Your task to perform on an android device: Is it going to rain this weekend? Image 0: 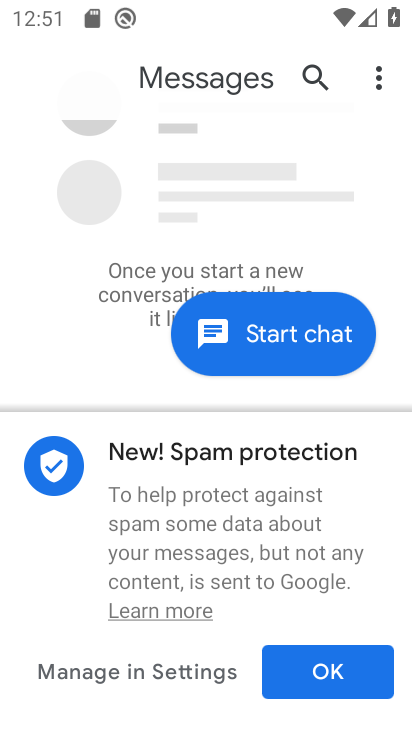
Step 0: press home button
Your task to perform on an android device: Is it going to rain this weekend? Image 1: 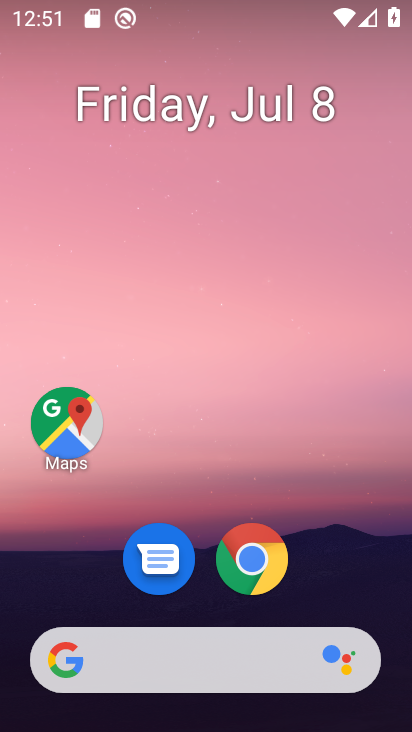
Step 1: drag from (225, 620) to (166, 26)
Your task to perform on an android device: Is it going to rain this weekend? Image 2: 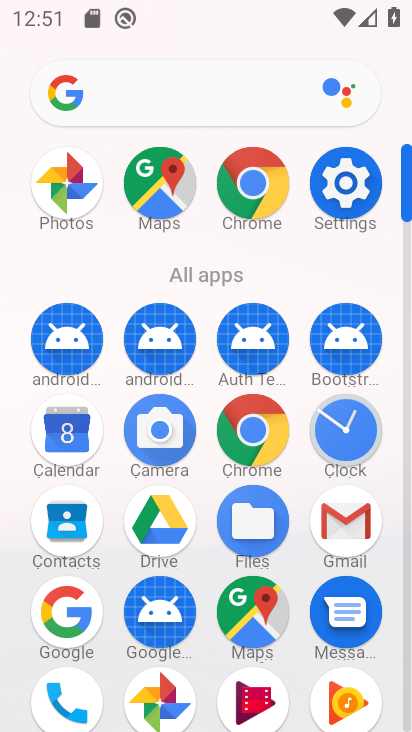
Step 2: click (60, 613)
Your task to perform on an android device: Is it going to rain this weekend? Image 3: 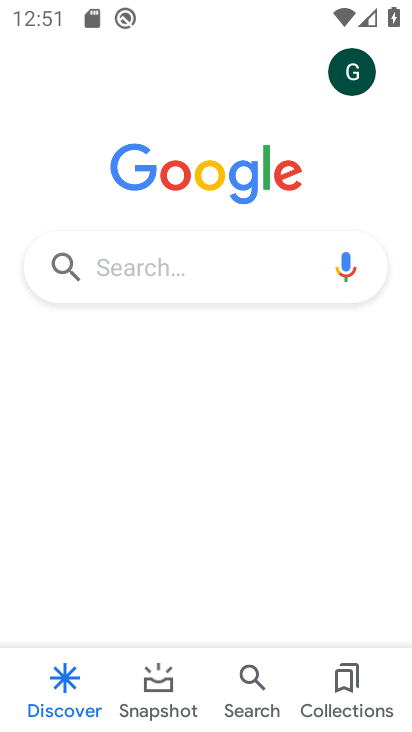
Step 3: click (189, 288)
Your task to perform on an android device: Is it going to rain this weekend? Image 4: 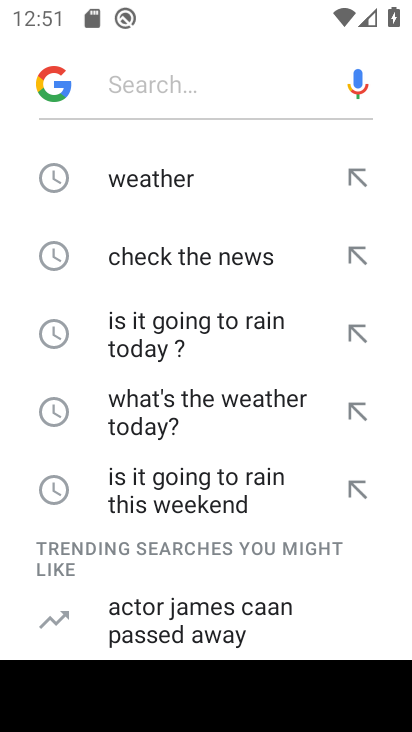
Step 4: click (200, 189)
Your task to perform on an android device: Is it going to rain this weekend? Image 5: 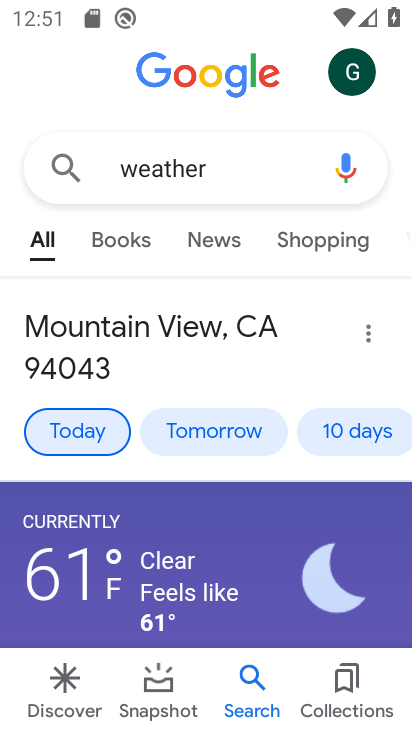
Step 5: click (340, 439)
Your task to perform on an android device: Is it going to rain this weekend? Image 6: 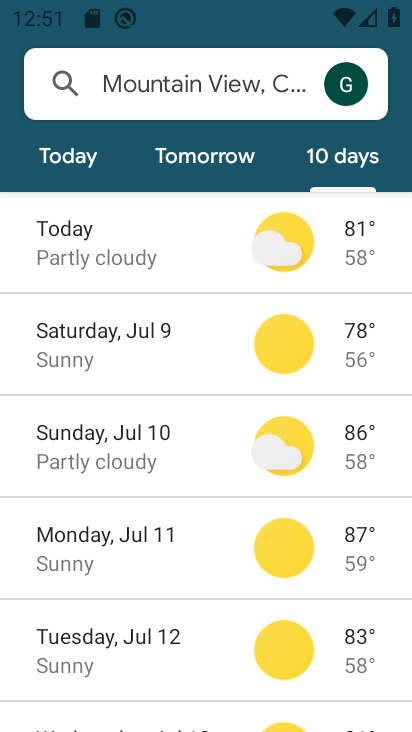
Step 6: task complete